Your task to perform on an android device: Check the settings for the Instagram app Image 0: 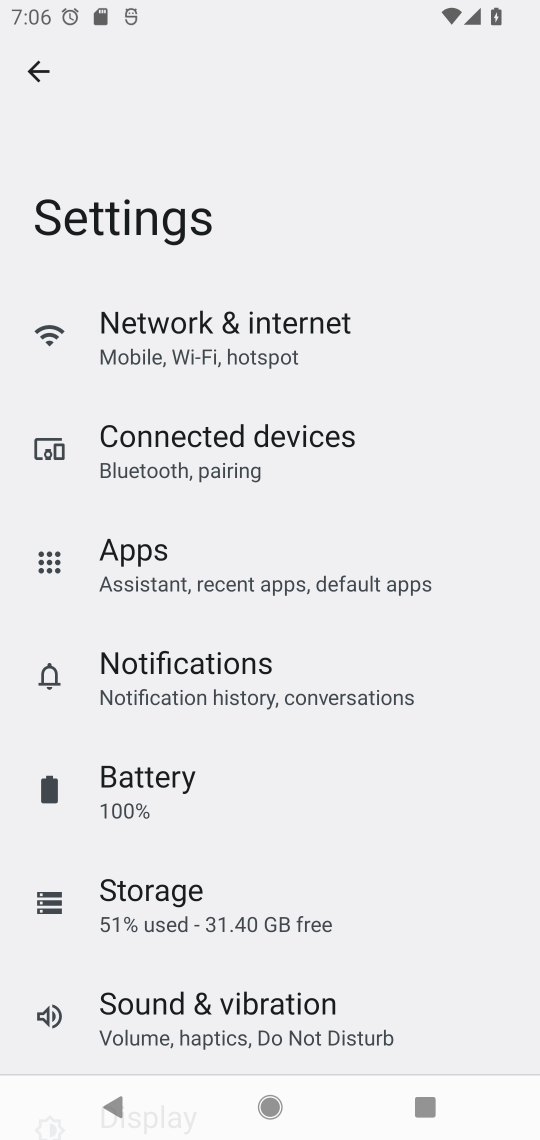
Step 0: click (274, 1107)
Your task to perform on an android device: Check the settings for the Instagram app Image 1: 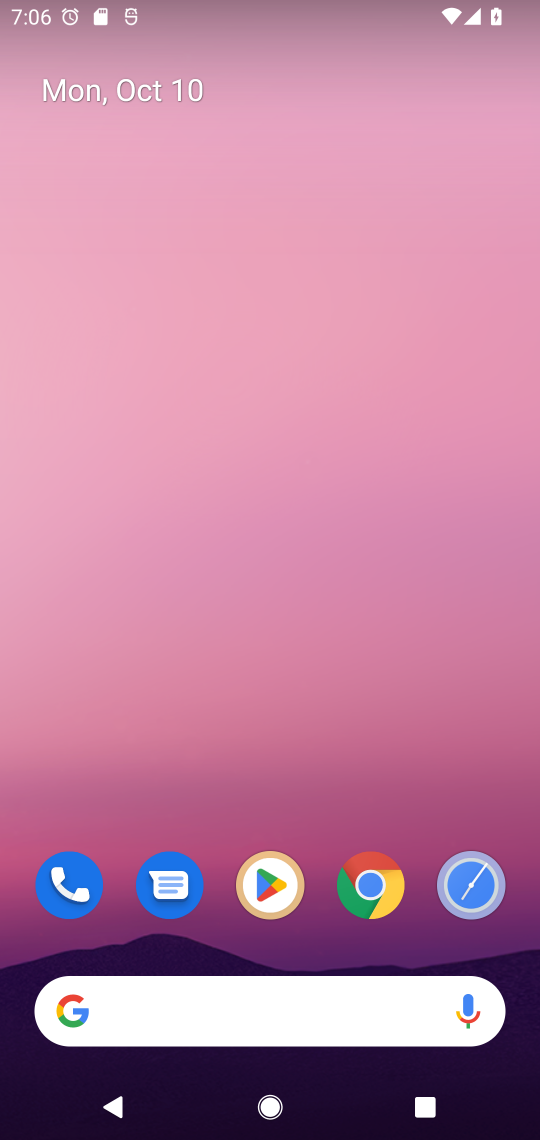
Step 1: drag from (363, 941) to (235, 467)
Your task to perform on an android device: Check the settings for the Instagram app Image 2: 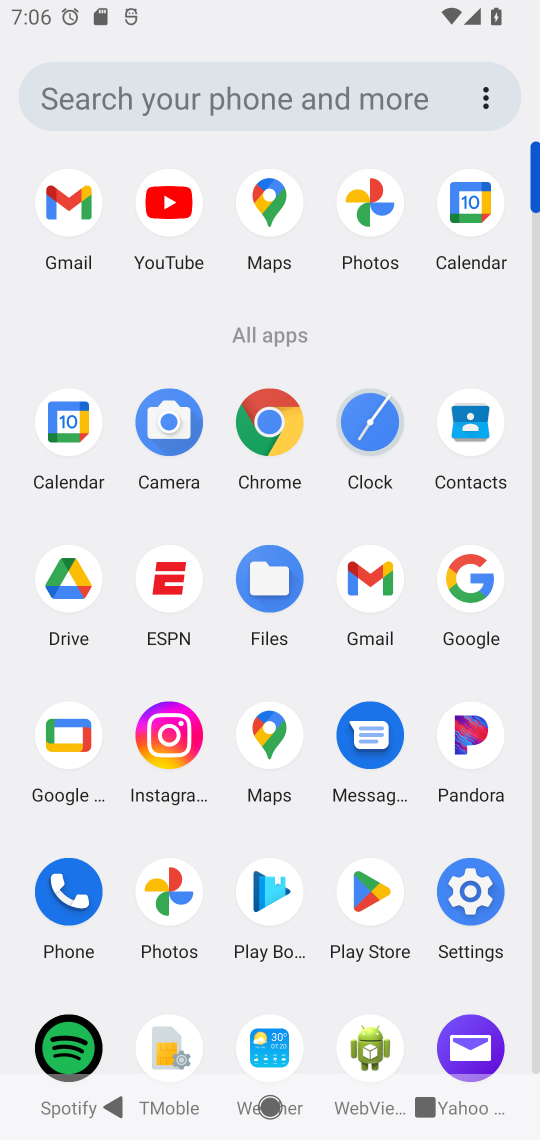
Step 2: click (170, 748)
Your task to perform on an android device: Check the settings for the Instagram app Image 3: 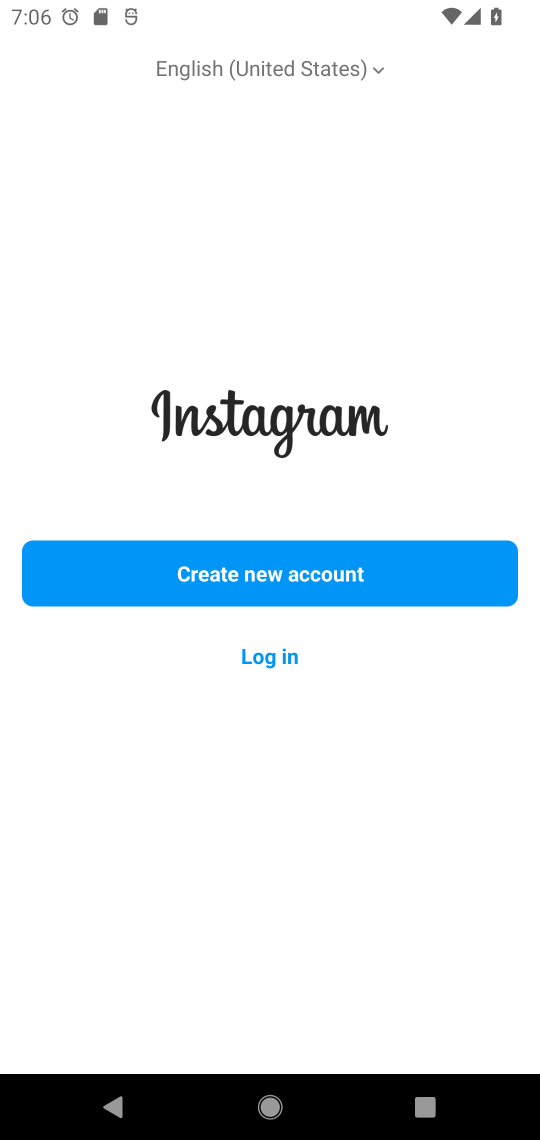
Step 3: click (272, 653)
Your task to perform on an android device: Check the settings for the Instagram app Image 4: 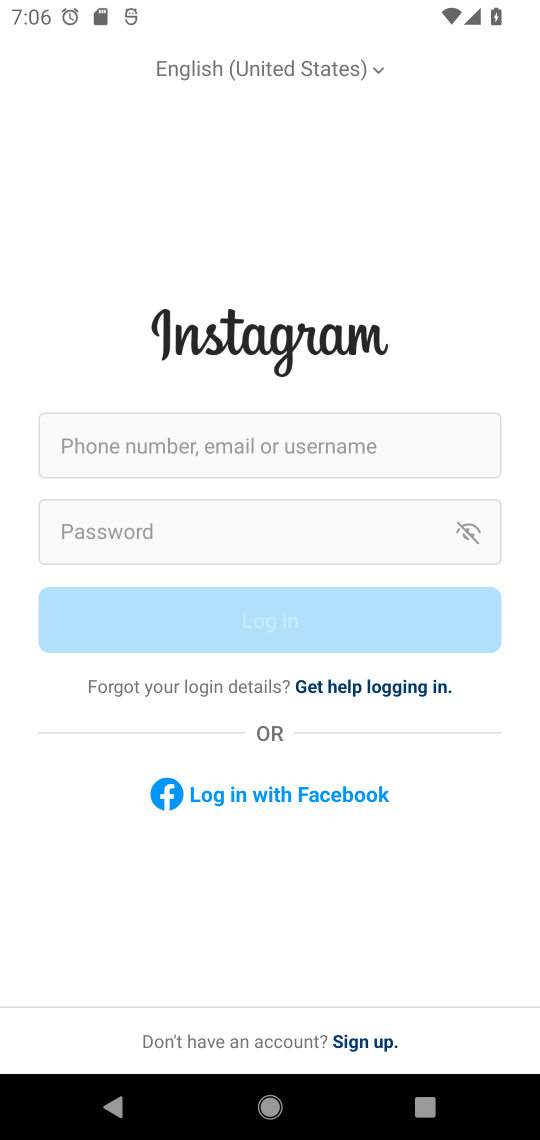
Step 4: task complete